Your task to perform on an android device: Open sound settings Image 0: 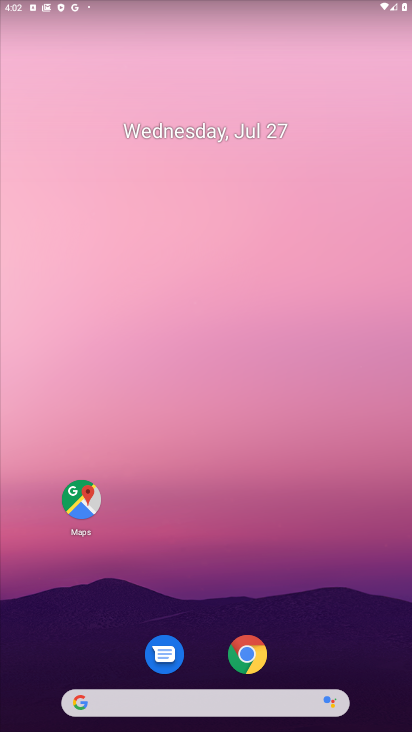
Step 0: drag from (215, 688) to (279, 237)
Your task to perform on an android device: Open sound settings Image 1: 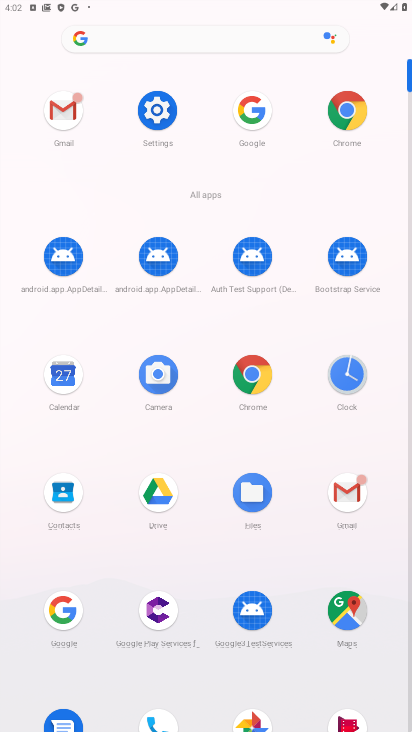
Step 1: click (145, 127)
Your task to perform on an android device: Open sound settings Image 2: 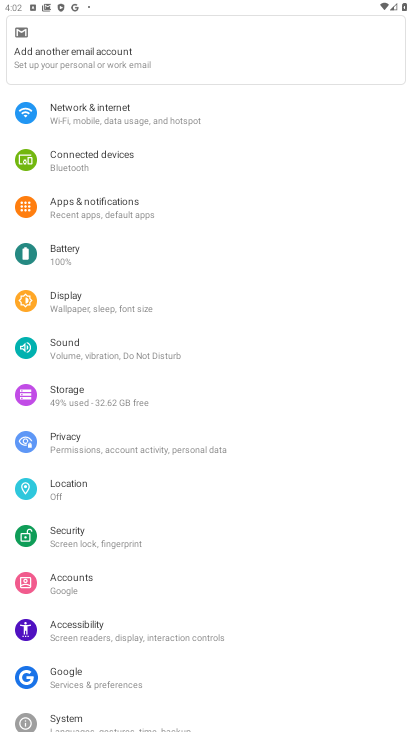
Step 2: click (83, 342)
Your task to perform on an android device: Open sound settings Image 3: 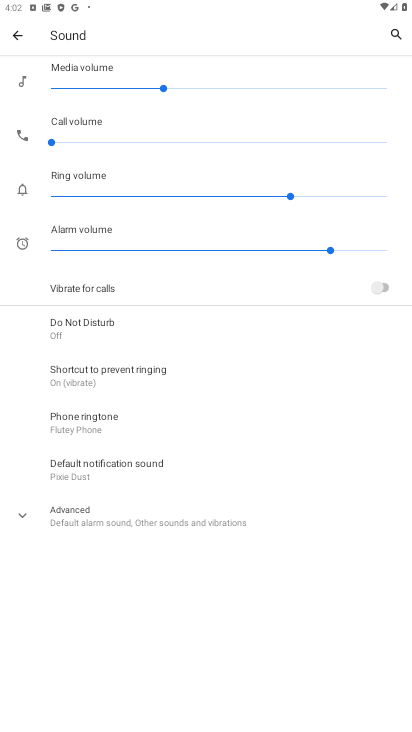
Step 3: click (98, 511)
Your task to perform on an android device: Open sound settings Image 4: 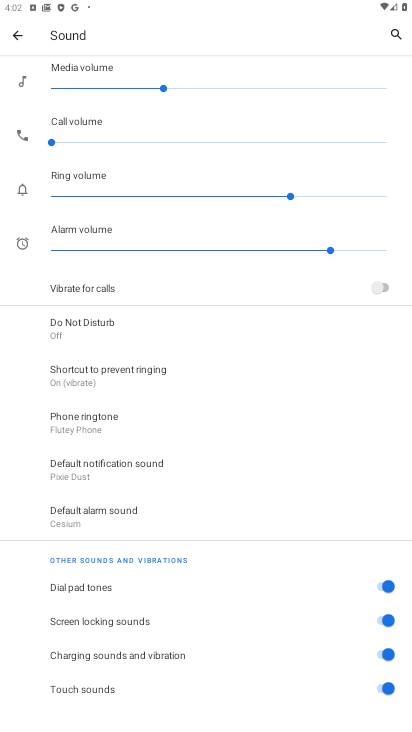
Step 4: task complete